Your task to perform on an android device: Toggle the flashlight Image 0: 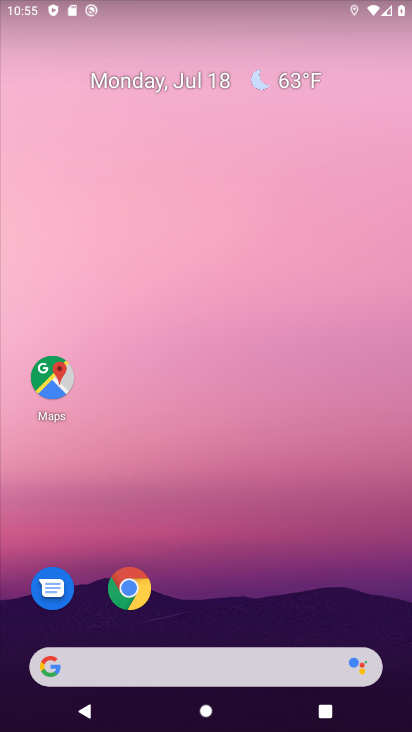
Step 0: drag from (156, 12) to (132, 355)
Your task to perform on an android device: Toggle the flashlight Image 1: 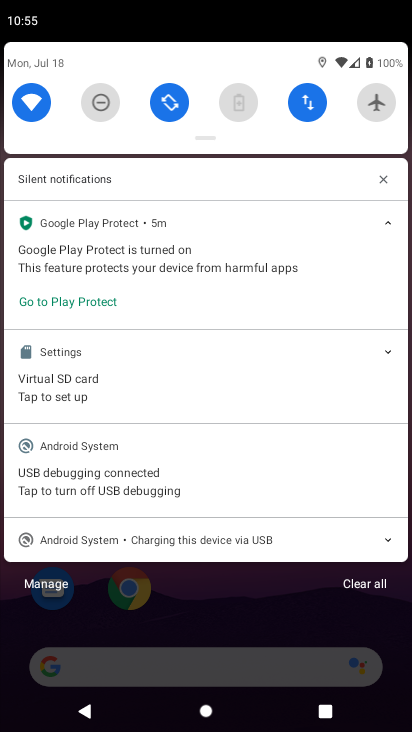
Step 1: task complete